Your task to perform on an android device: find snoozed emails in the gmail app Image 0: 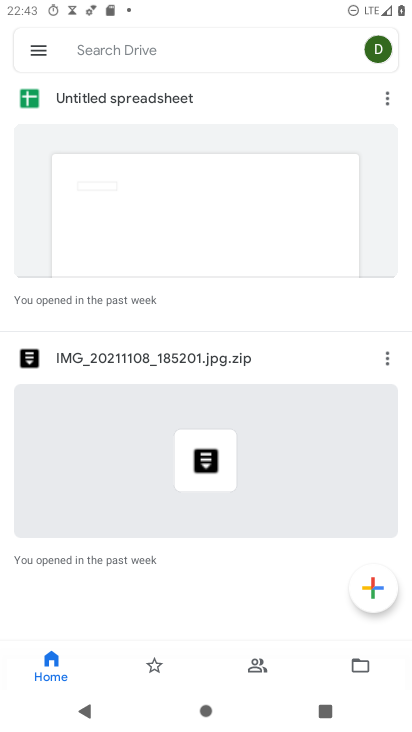
Step 0: press back button
Your task to perform on an android device: find snoozed emails in the gmail app Image 1: 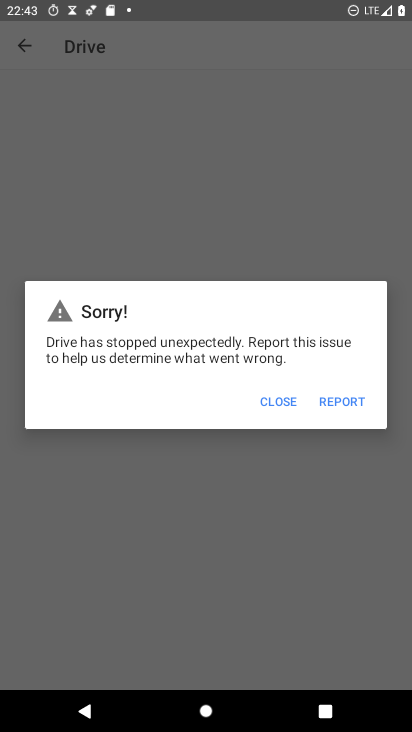
Step 1: press back button
Your task to perform on an android device: find snoozed emails in the gmail app Image 2: 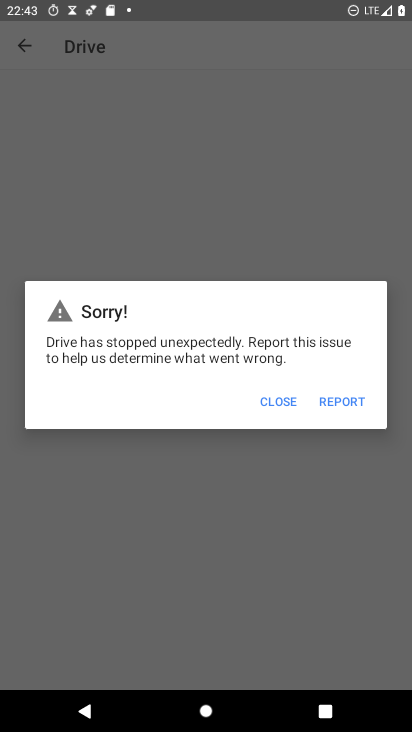
Step 2: press home button
Your task to perform on an android device: find snoozed emails in the gmail app Image 3: 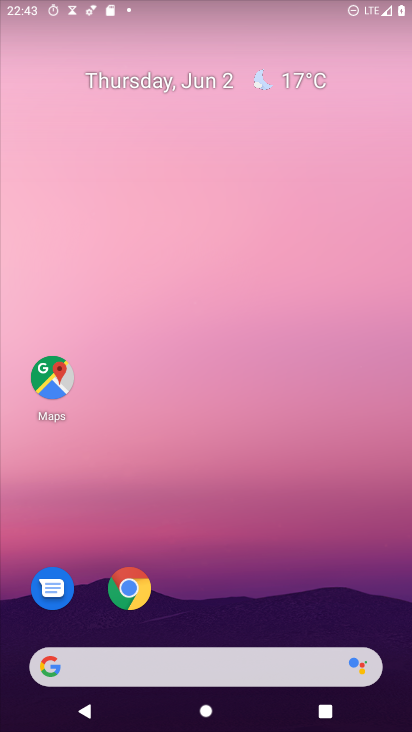
Step 3: drag from (208, 540) to (231, 43)
Your task to perform on an android device: find snoozed emails in the gmail app Image 4: 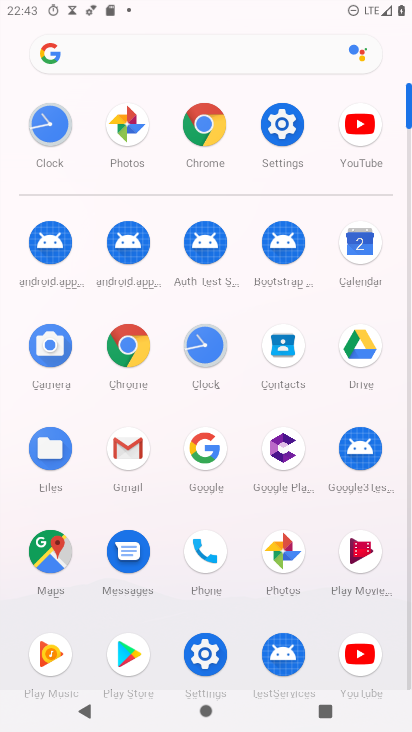
Step 4: click (120, 454)
Your task to perform on an android device: find snoozed emails in the gmail app Image 5: 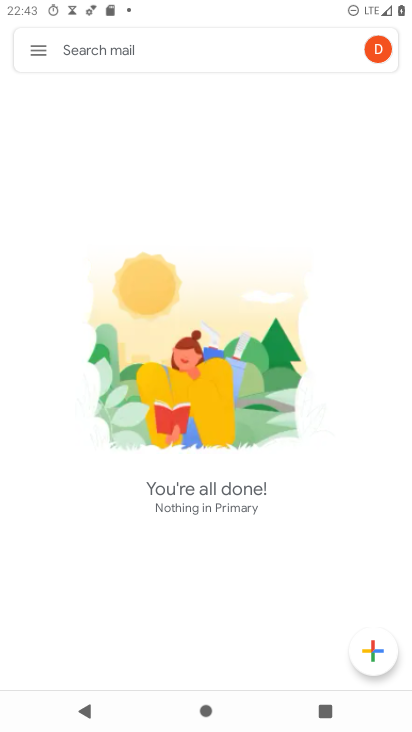
Step 5: click (44, 50)
Your task to perform on an android device: find snoozed emails in the gmail app Image 6: 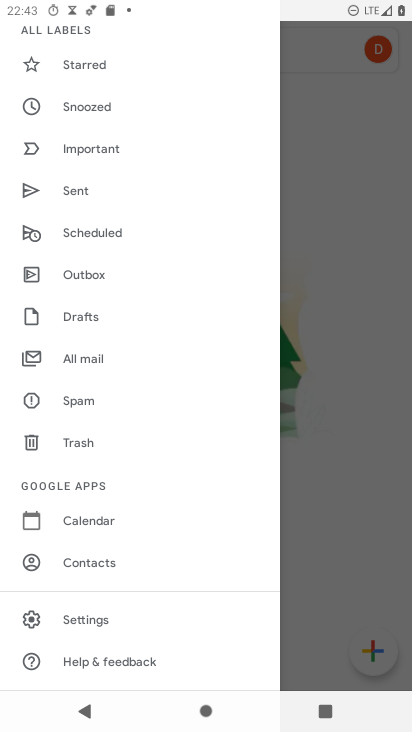
Step 6: click (108, 100)
Your task to perform on an android device: find snoozed emails in the gmail app Image 7: 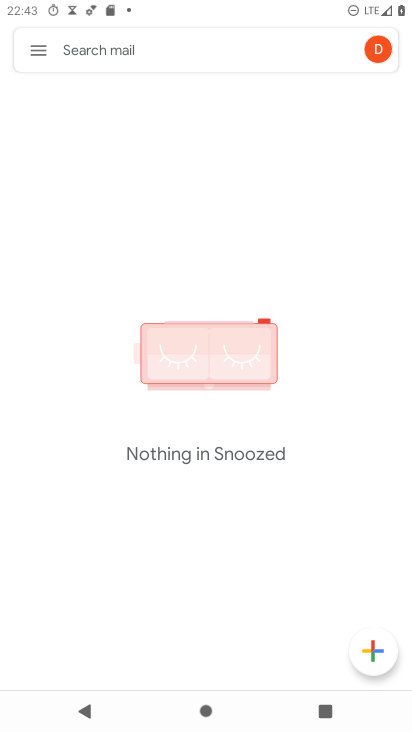
Step 7: task complete